Your task to perform on an android device: toggle translation in the chrome app Image 0: 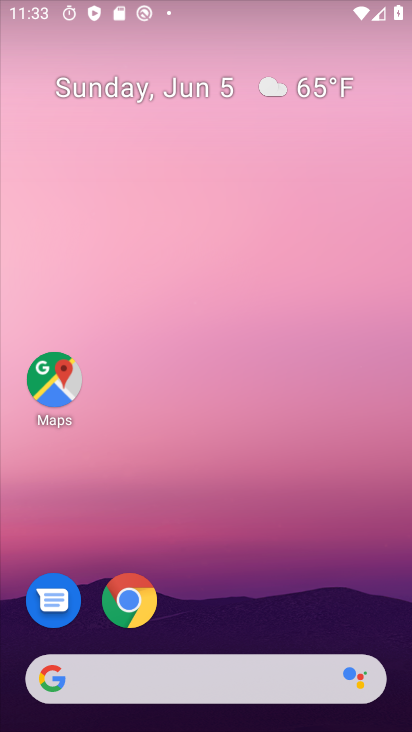
Step 0: drag from (272, 684) to (135, 96)
Your task to perform on an android device: toggle translation in the chrome app Image 1: 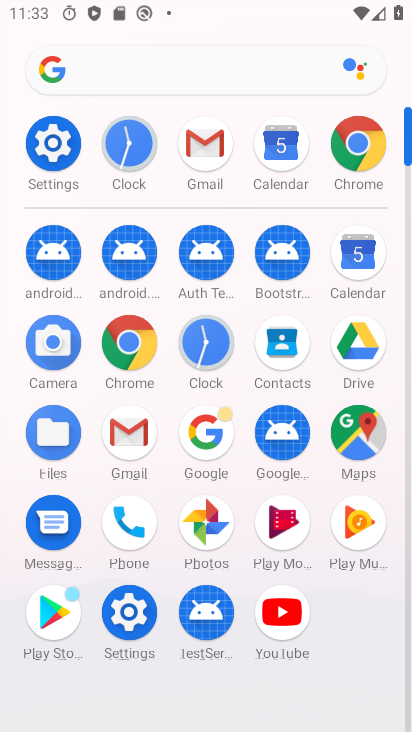
Step 1: click (365, 153)
Your task to perform on an android device: toggle translation in the chrome app Image 2: 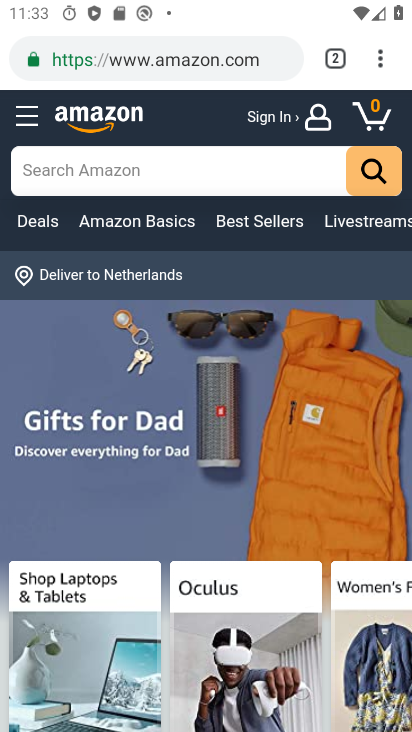
Step 2: click (385, 60)
Your task to perform on an android device: toggle translation in the chrome app Image 3: 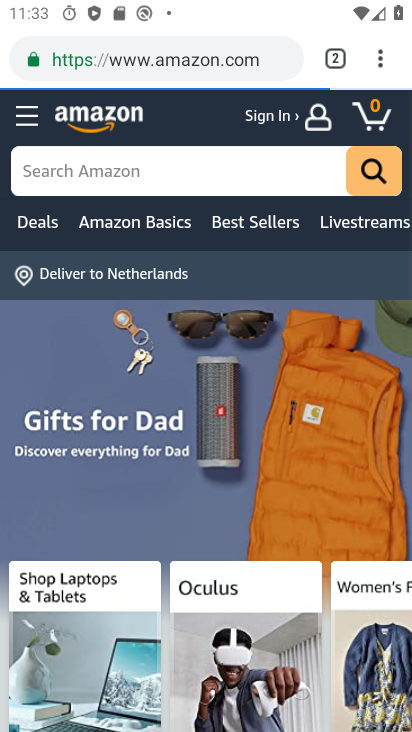
Step 3: drag from (378, 63) to (156, 660)
Your task to perform on an android device: toggle translation in the chrome app Image 4: 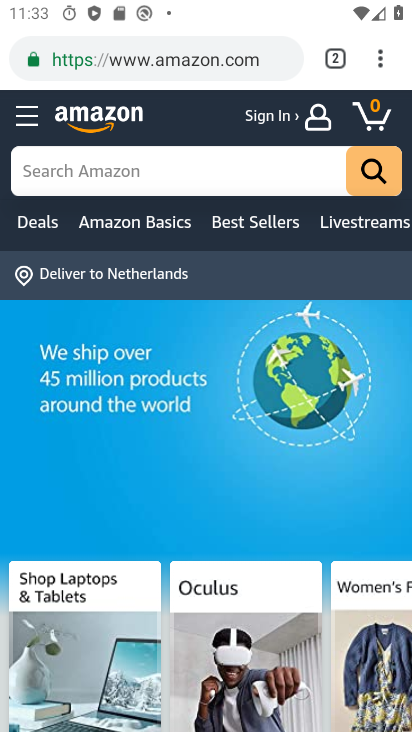
Step 4: click (377, 68)
Your task to perform on an android device: toggle translation in the chrome app Image 5: 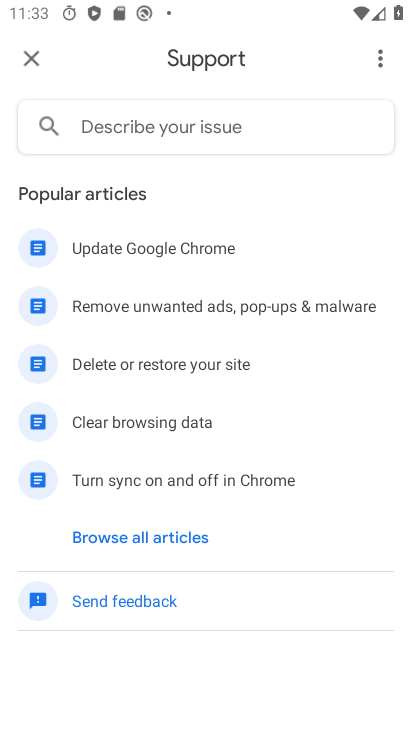
Step 5: click (29, 58)
Your task to perform on an android device: toggle translation in the chrome app Image 6: 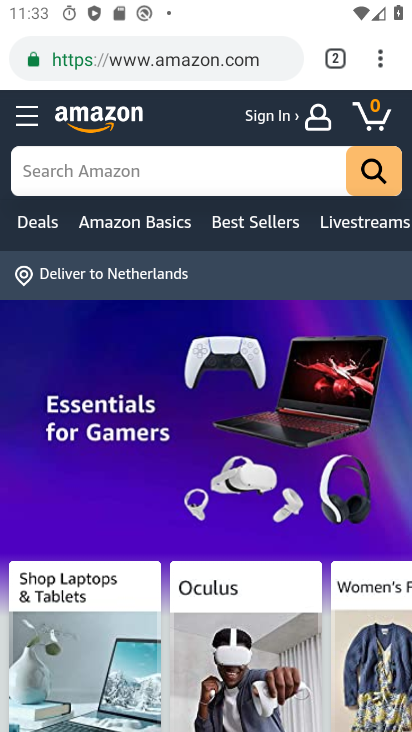
Step 6: drag from (374, 62) to (136, 635)
Your task to perform on an android device: toggle translation in the chrome app Image 7: 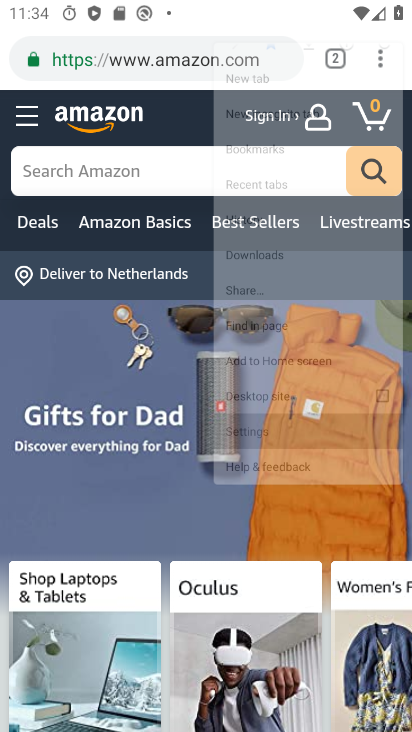
Step 7: click (139, 640)
Your task to perform on an android device: toggle translation in the chrome app Image 8: 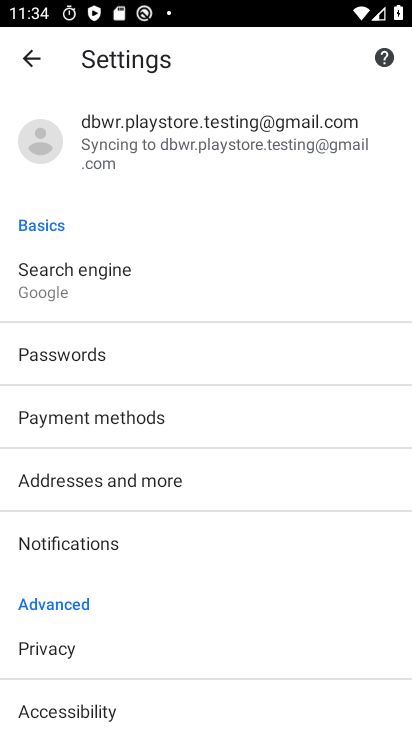
Step 8: drag from (165, 498) to (122, 35)
Your task to perform on an android device: toggle translation in the chrome app Image 9: 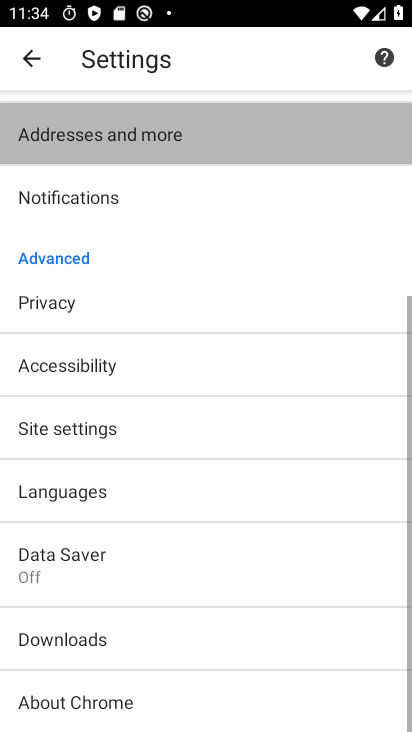
Step 9: drag from (160, 398) to (101, 3)
Your task to perform on an android device: toggle translation in the chrome app Image 10: 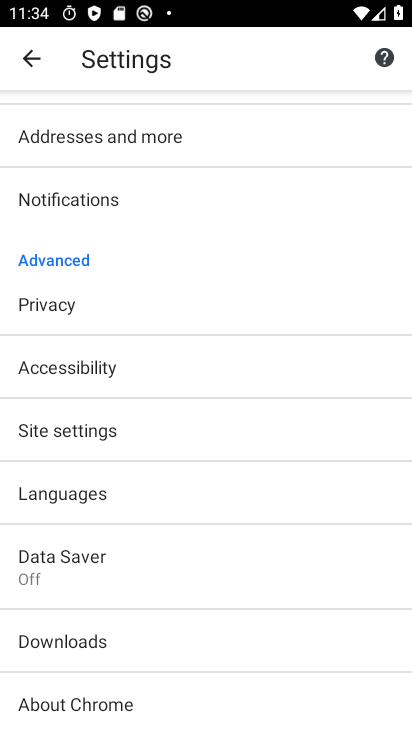
Step 10: click (43, 493)
Your task to perform on an android device: toggle translation in the chrome app Image 11: 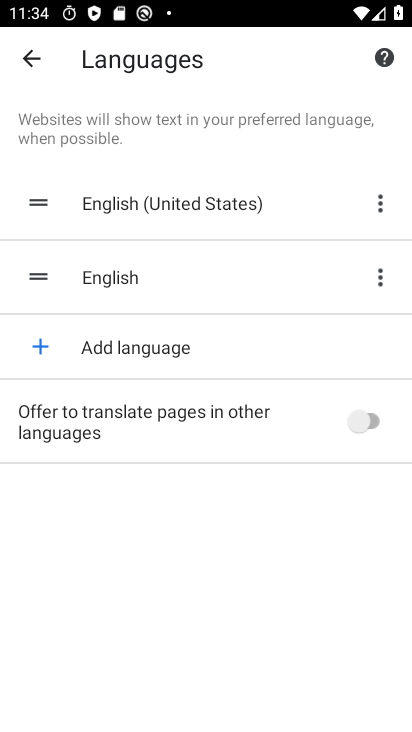
Step 11: click (362, 425)
Your task to perform on an android device: toggle translation in the chrome app Image 12: 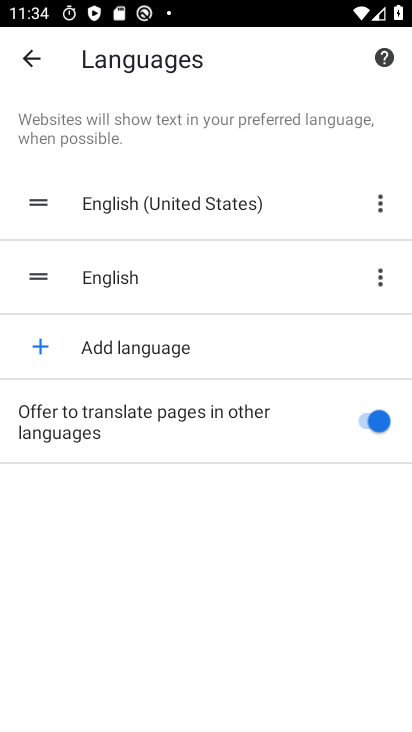
Step 12: task complete